Your task to perform on an android device: turn on data saver in the chrome app Image 0: 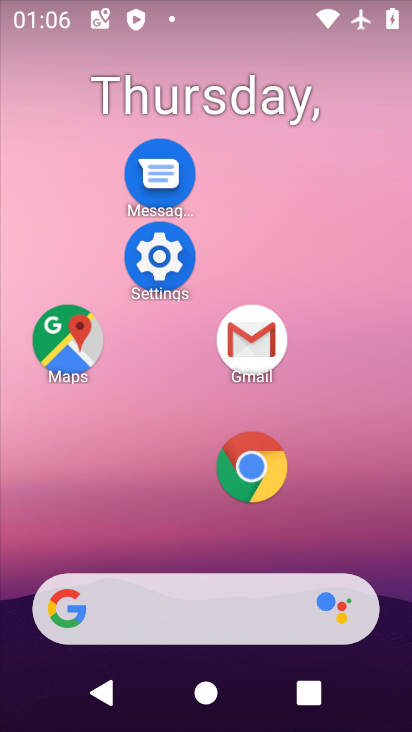
Step 0: drag from (194, 528) to (187, 57)
Your task to perform on an android device: turn on data saver in the chrome app Image 1: 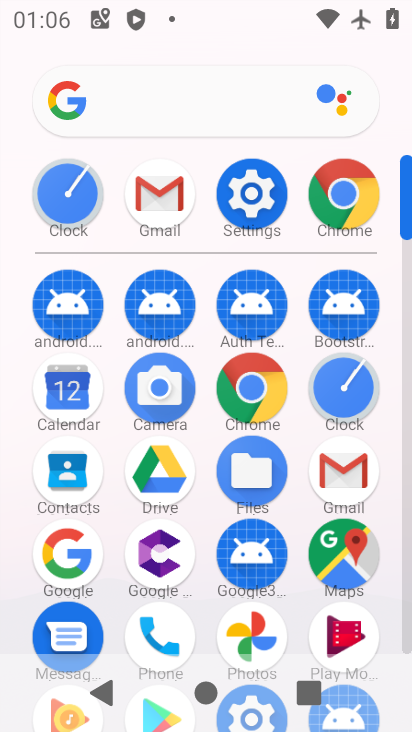
Step 1: click (242, 387)
Your task to perform on an android device: turn on data saver in the chrome app Image 2: 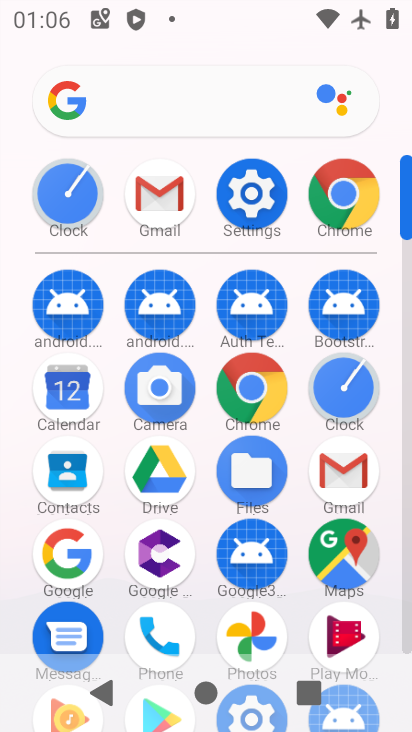
Step 2: click (242, 387)
Your task to perform on an android device: turn on data saver in the chrome app Image 3: 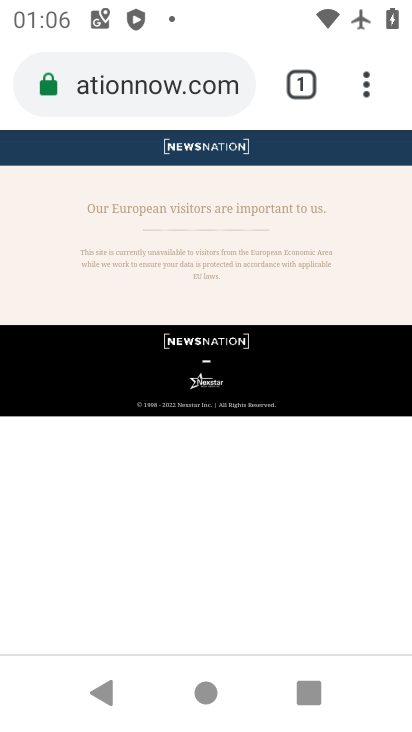
Step 3: drag from (366, 102) to (126, 518)
Your task to perform on an android device: turn on data saver in the chrome app Image 4: 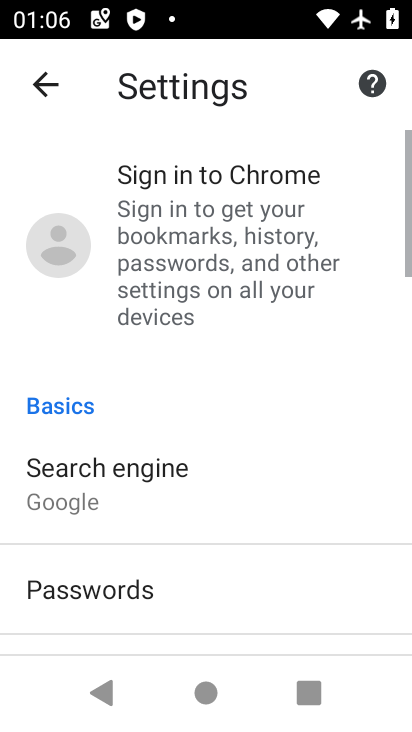
Step 4: drag from (210, 575) to (308, 85)
Your task to perform on an android device: turn on data saver in the chrome app Image 5: 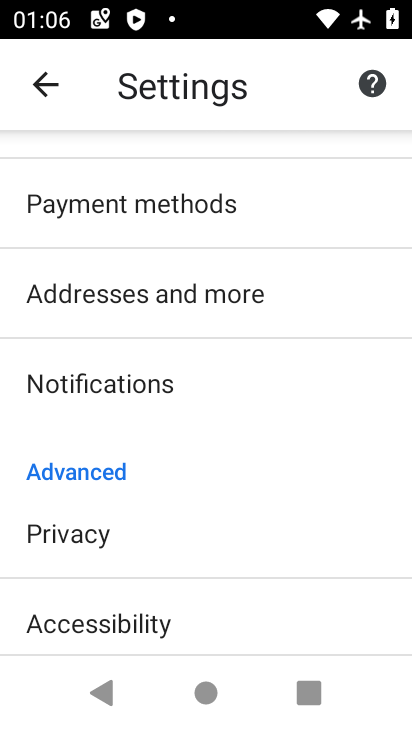
Step 5: drag from (177, 605) to (242, 184)
Your task to perform on an android device: turn on data saver in the chrome app Image 6: 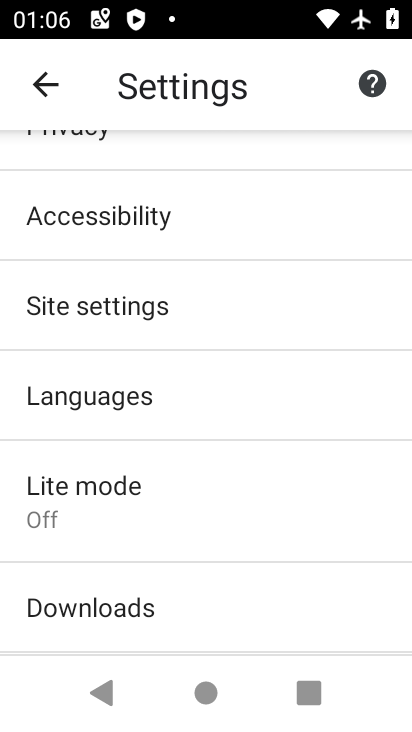
Step 6: click (133, 505)
Your task to perform on an android device: turn on data saver in the chrome app Image 7: 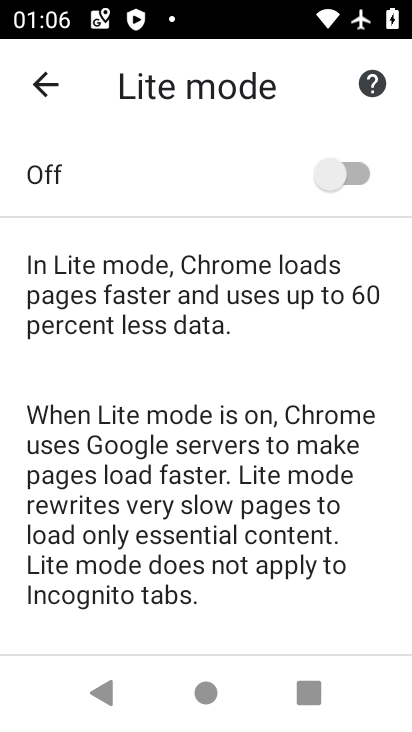
Step 7: click (318, 162)
Your task to perform on an android device: turn on data saver in the chrome app Image 8: 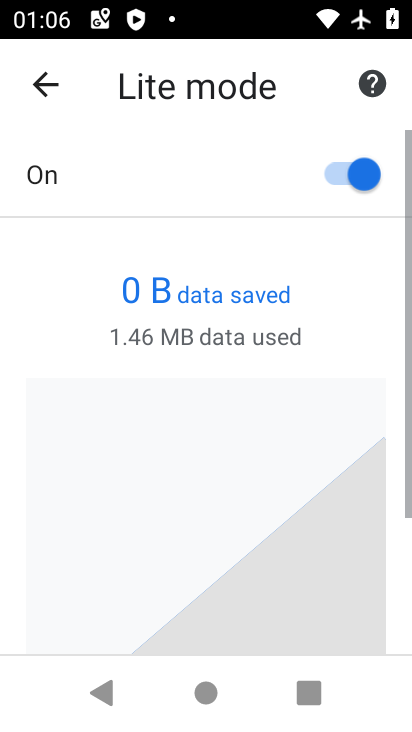
Step 8: task complete